Your task to perform on an android device: Open the web browser Image 0: 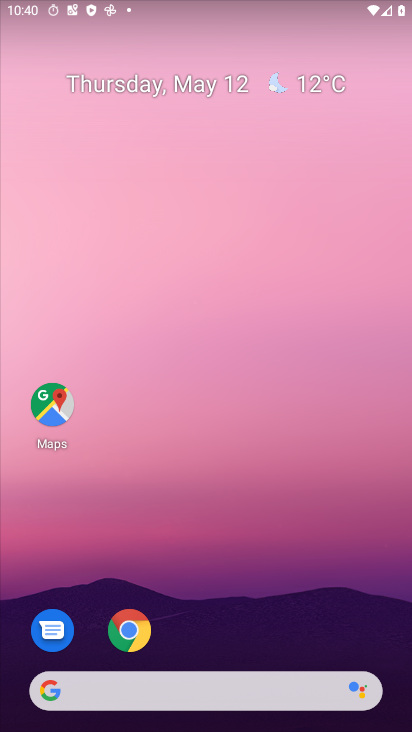
Step 0: click (138, 628)
Your task to perform on an android device: Open the web browser Image 1: 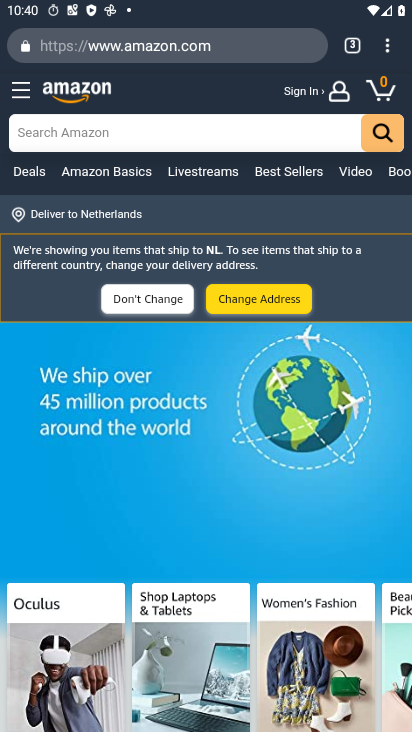
Step 1: task complete